Your task to perform on an android device: Go to eBay Image 0: 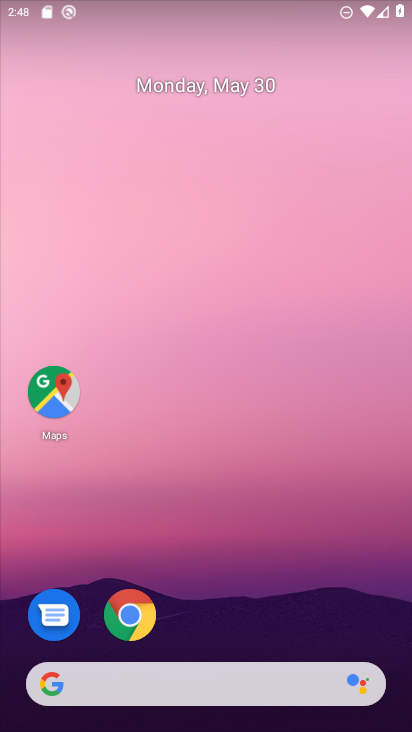
Step 0: click (146, 624)
Your task to perform on an android device: Go to eBay Image 1: 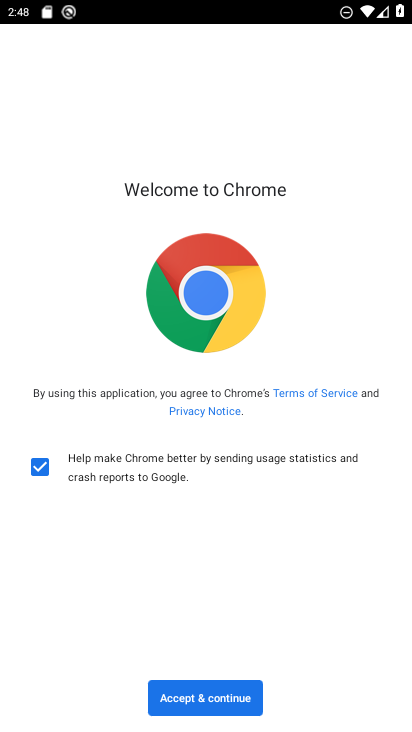
Step 1: click (186, 690)
Your task to perform on an android device: Go to eBay Image 2: 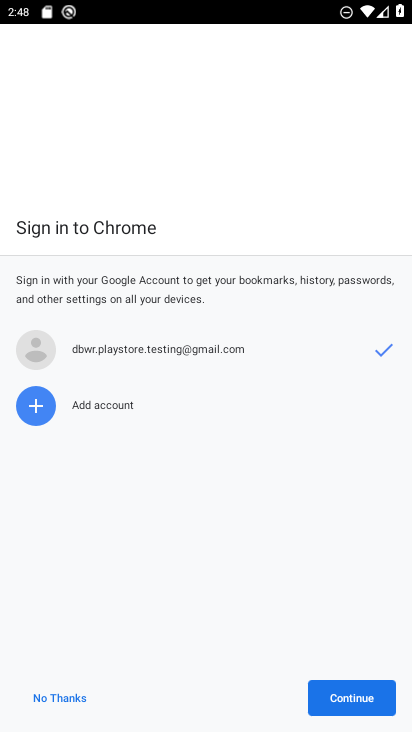
Step 2: click (376, 705)
Your task to perform on an android device: Go to eBay Image 3: 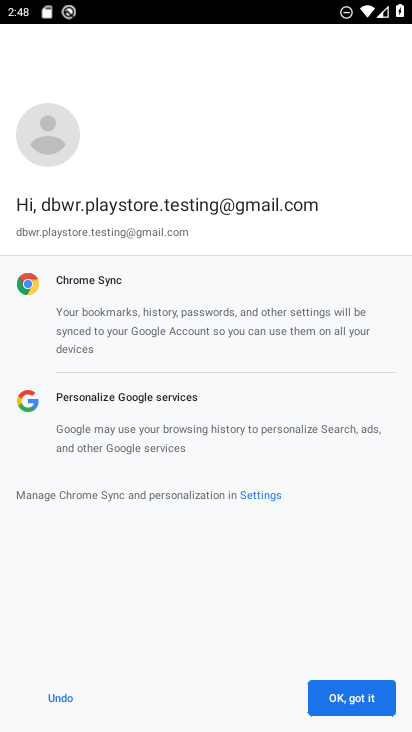
Step 3: click (374, 705)
Your task to perform on an android device: Go to eBay Image 4: 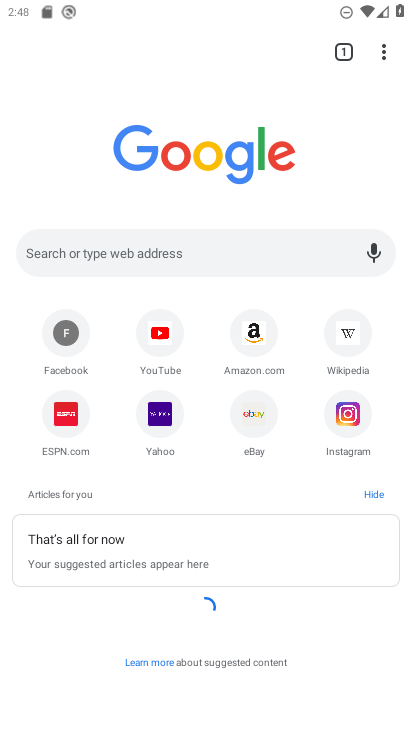
Step 4: click (155, 267)
Your task to perform on an android device: Go to eBay Image 5: 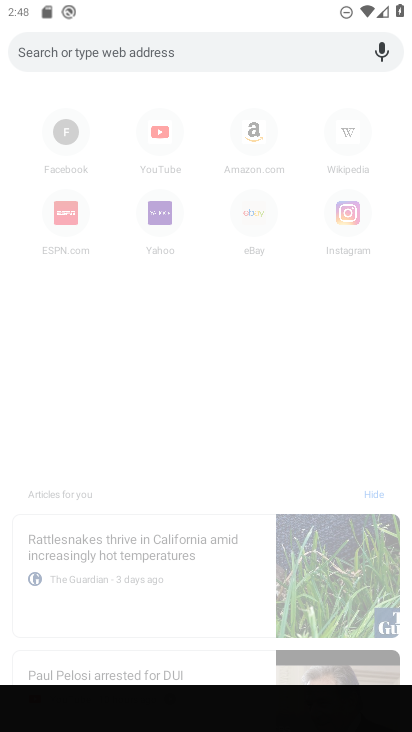
Step 5: press back button
Your task to perform on an android device: Go to eBay Image 6: 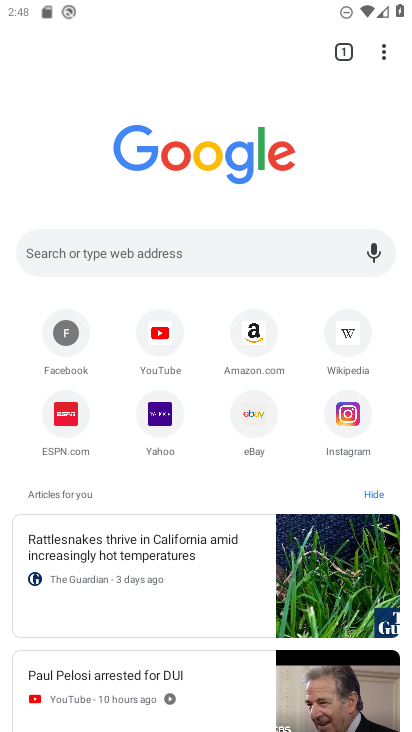
Step 6: click (235, 421)
Your task to perform on an android device: Go to eBay Image 7: 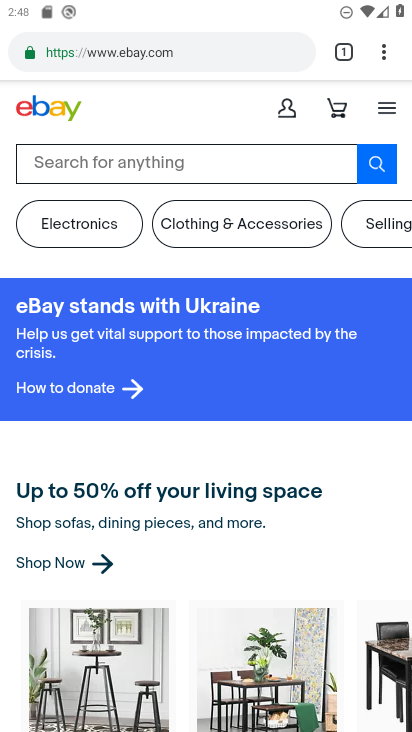
Step 7: task complete